Your task to perform on an android device: toggle improve location accuracy Image 0: 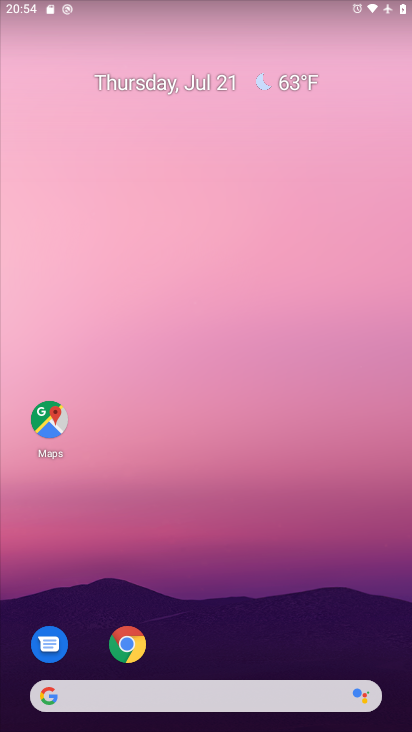
Step 0: drag from (178, 664) to (230, 200)
Your task to perform on an android device: toggle improve location accuracy Image 1: 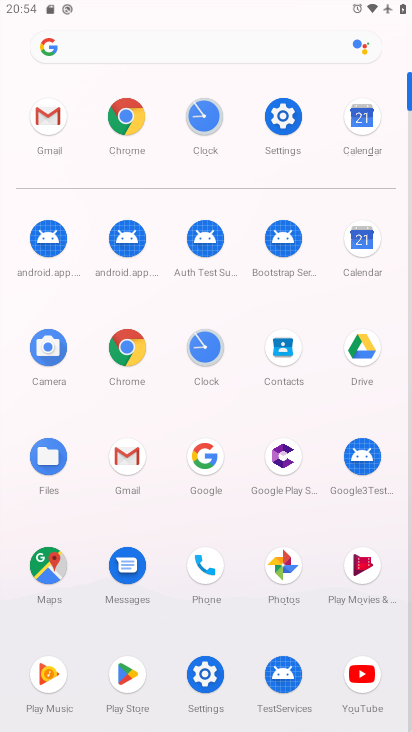
Step 1: click (278, 109)
Your task to perform on an android device: toggle improve location accuracy Image 2: 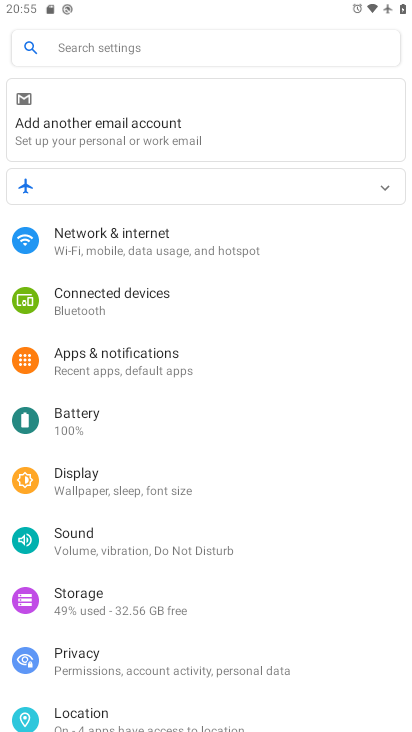
Step 2: drag from (114, 622) to (130, 352)
Your task to perform on an android device: toggle improve location accuracy Image 3: 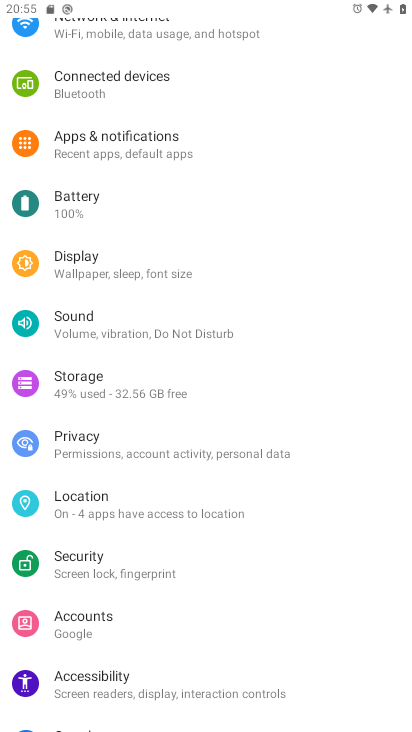
Step 3: click (80, 508)
Your task to perform on an android device: toggle improve location accuracy Image 4: 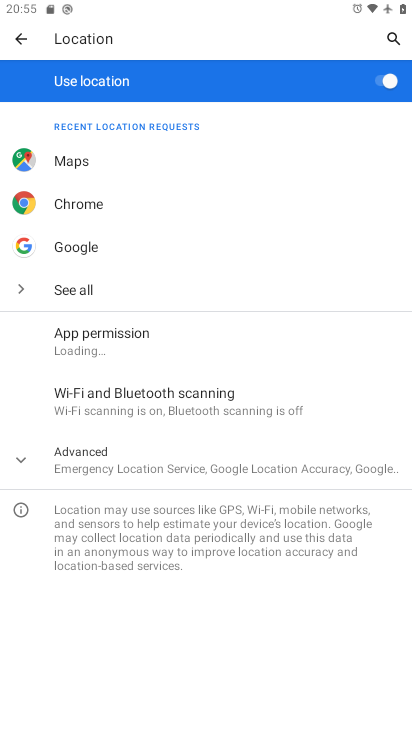
Step 4: click (134, 451)
Your task to perform on an android device: toggle improve location accuracy Image 5: 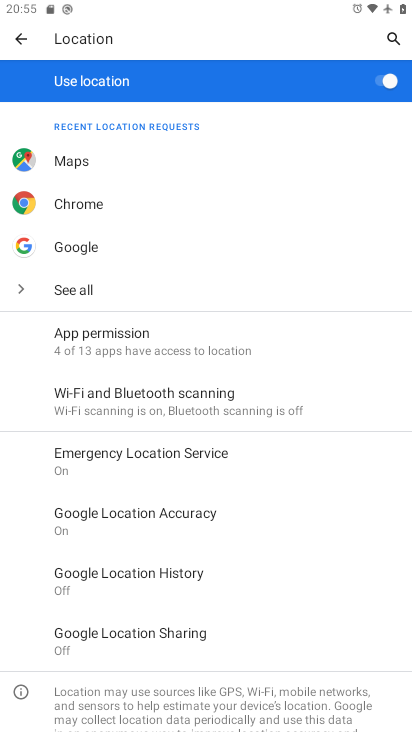
Step 5: click (166, 524)
Your task to perform on an android device: toggle improve location accuracy Image 6: 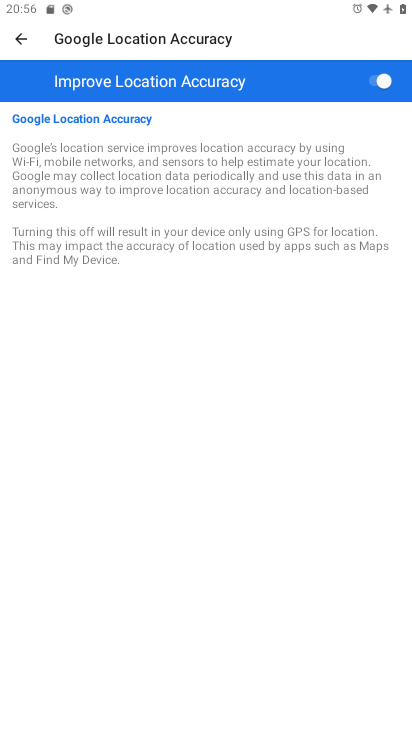
Step 6: task complete